Your task to perform on an android device: Open eBay Image 0: 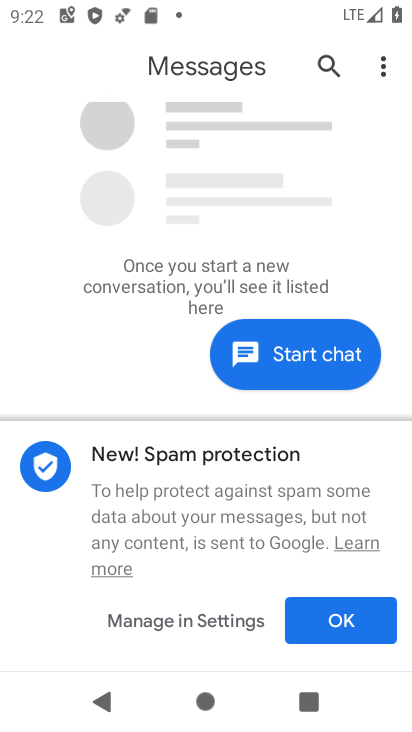
Step 0: press home button
Your task to perform on an android device: Open eBay Image 1: 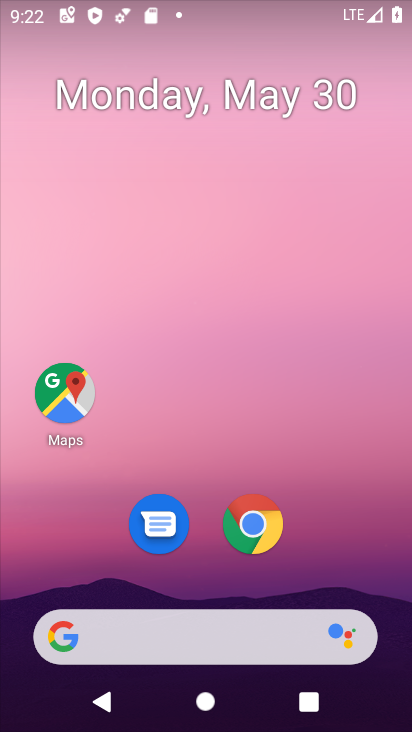
Step 1: click (202, 641)
Your task to perform on an android device: Open eBay Image 2: 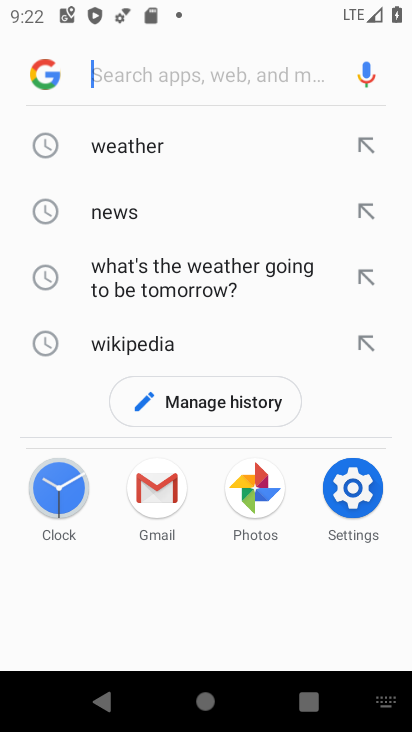
Step 2: type "ebay"
Your task to perform on an android device: Open eBay Image 3: 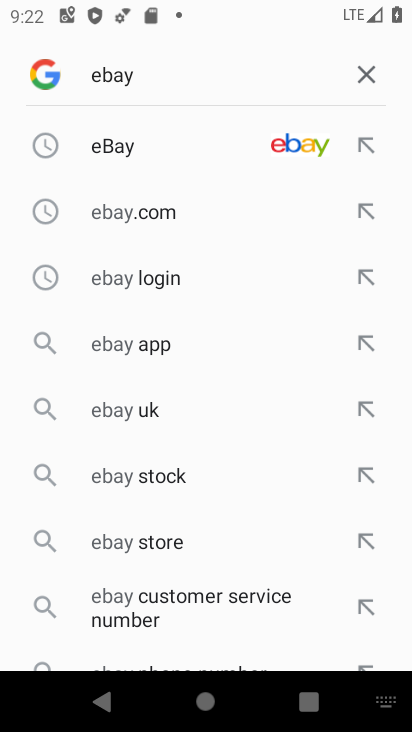
Step 3: click (110, 152)
Your task to perform on an android device: Open eBay Image 4: 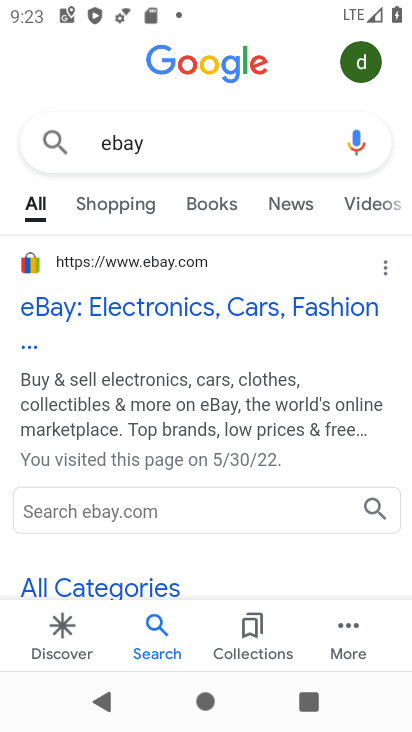
Step 4: click (55, 307)
Your task to perform on an android device: Open eBay Image 5: 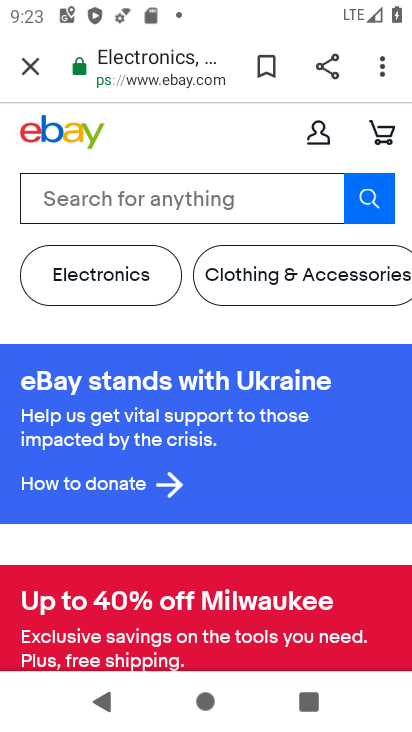
Step 5: task complete